Your task to perform on an android device: View the shopping cart on target.com. Add apple airpods to the cart on target.com Image 0: 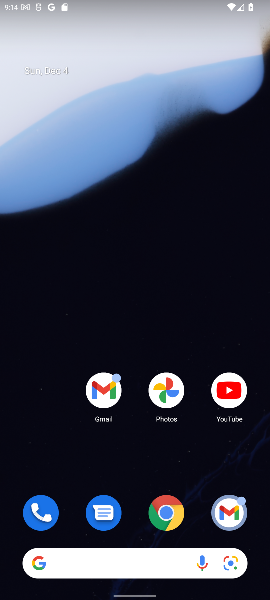
Step 0: click (167, 499)
Your task to perform on an android device: View the shopping cart on target.com. Add apple airpods to the cart on target.com Image 1: 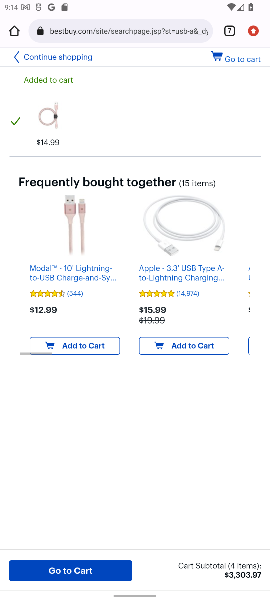
Step 1: click (230, 28)
Your task to perform on an android device: View the shopping cart on target.com. Add apple airpods to the cart on target.com Image 2: 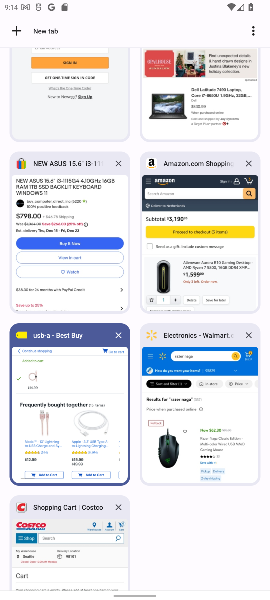
Step 2: click (222, 87)
Your task to perform on an android device: View the shopping cart on target.com. Add apple airpods to the cart on target.com Image 3: 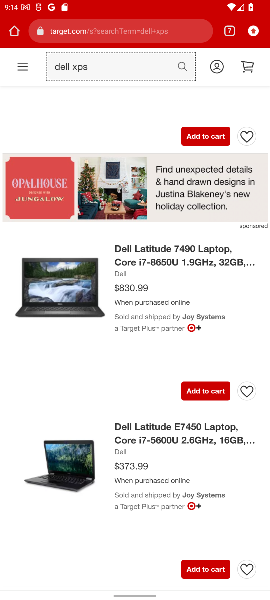
Step 3: click (127, 69)
Your task to perform on an android device: View the shopping cart on target.com. Add apple airpods to the cart on target.com Image 4: 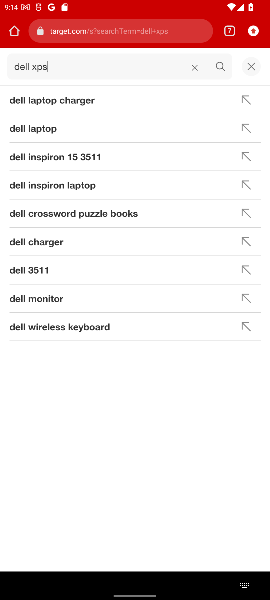
Step 4: click (195, 66)
Your task to perform on an android device: View the shopping cart on target.com. Add apple airpods to the cart on target.com Image 5: 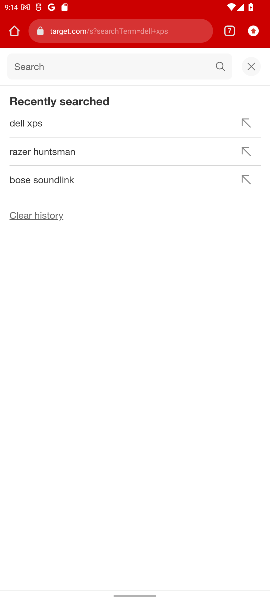
Step 5: click (130, 70)
Your task to perform on an android device: View the shopping cart on target.com. Add apple airpods to the cart on target.com Image 6: 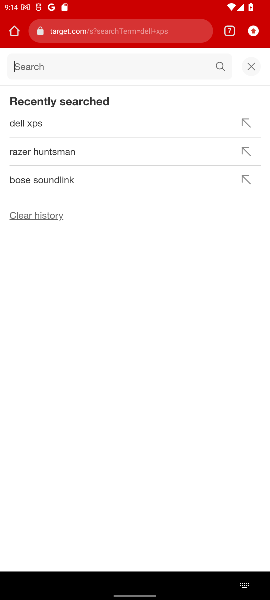
Step 6: type "apple airpods"
Your task to perform on an android device: View the shopping cart on target.com. Add apple airpods to the cart on target.com Image 7: 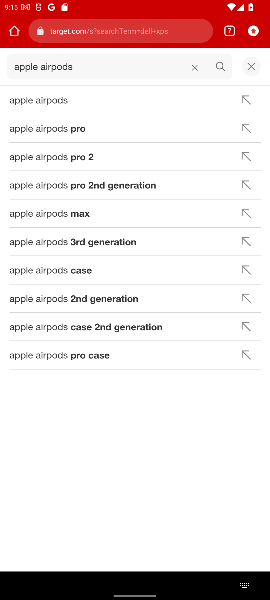
Step 7: click (28, 101)
Your task to perform on an android device: View the shopping cart on target.com. Add apple airpods to the cart on target.com Image 8: 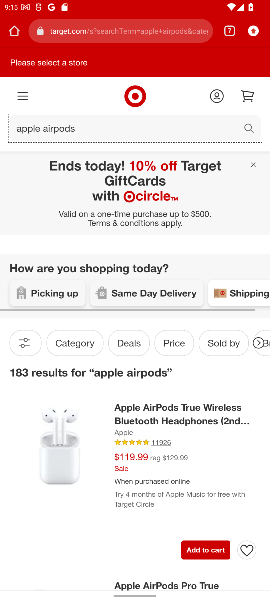
Step 8: click (200, 549)
Your task to perform on an android device: View the shopping cart on target.com. Add apple airpods to the cart on target.com Image 9: 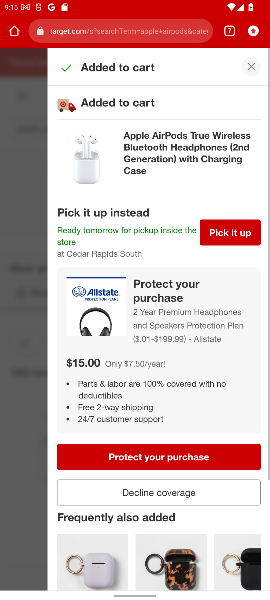
Step 9: task complete